Your task to perform on an android device: open a bookmark in the chrome app Image 0: 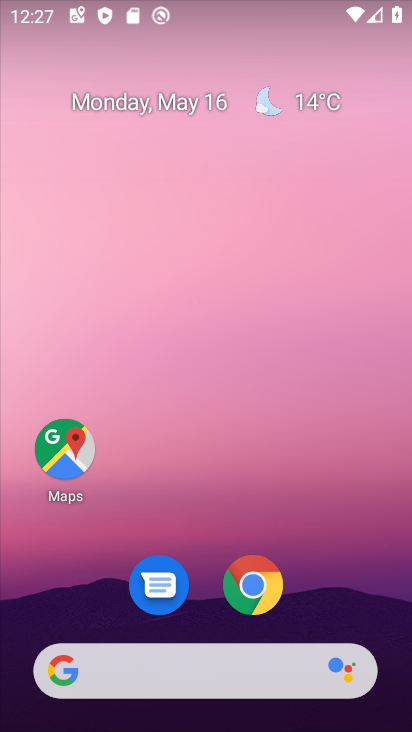
Step 0: click (270, 575)
Your task to perform on an android device: open a bookmark in the chrome app Image 1: 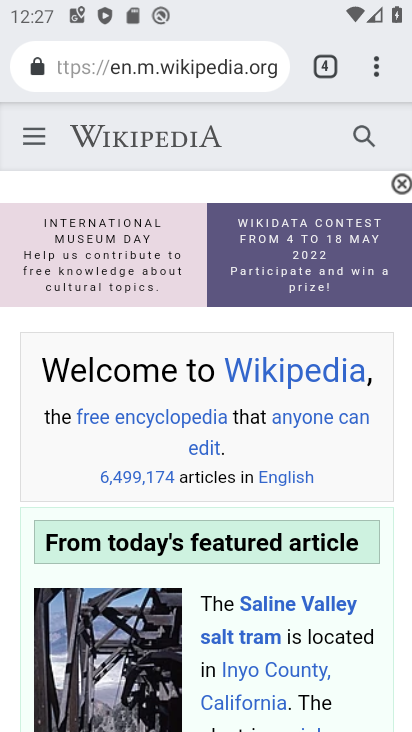
Step 1: click (374, 55)
Your task to perform on an android device: open a bookmark in the chrome app Image 2: 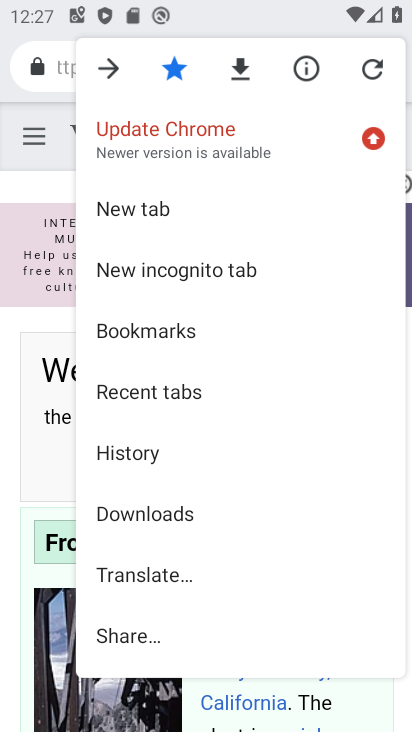
Step 2: click (193, 337)
Your task to perform on an android device: open a bookmark in the chrome app Image 3: 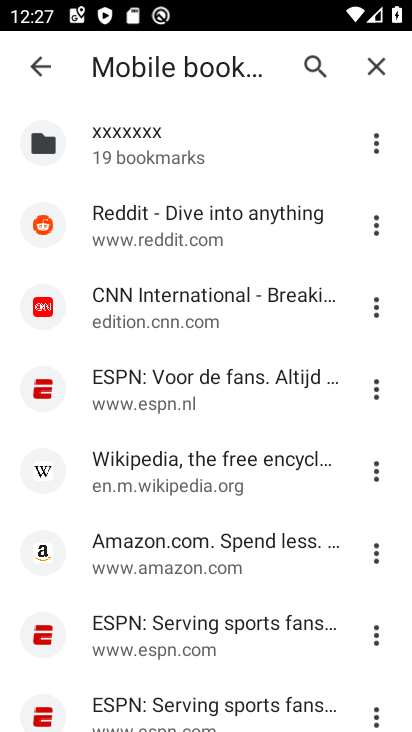
Step 3: click (199, 543)
Your task to perform on an android device: open a bookmark in the chrome app Image 4: 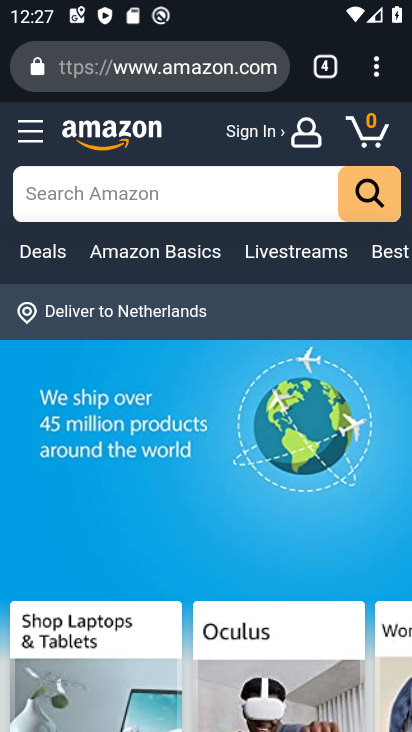
Step 4: task complete